Your task to perform on an android device: change the upload size in google photos Image 0: 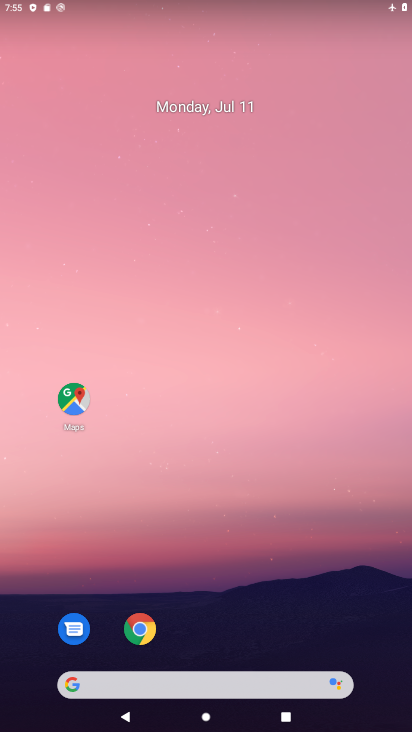
Step 0: drag from (220, 658) to (144, 8)
Your task to perform on an android device: change the upload size in google photos Image 1: 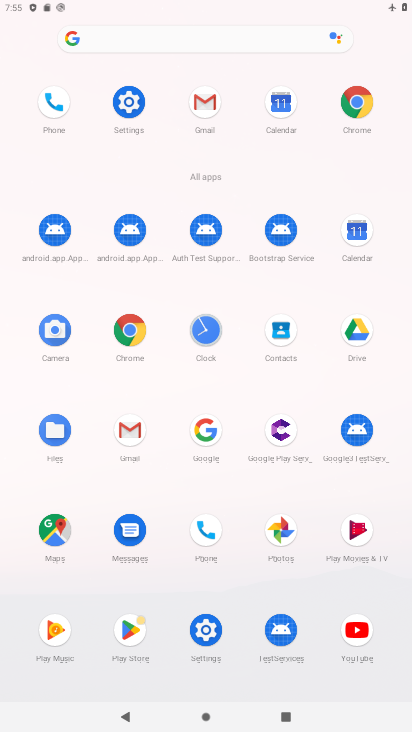
Step 1: click (279, 531)
Your task to perform on an android device: change the upload size in google photos Image 2: 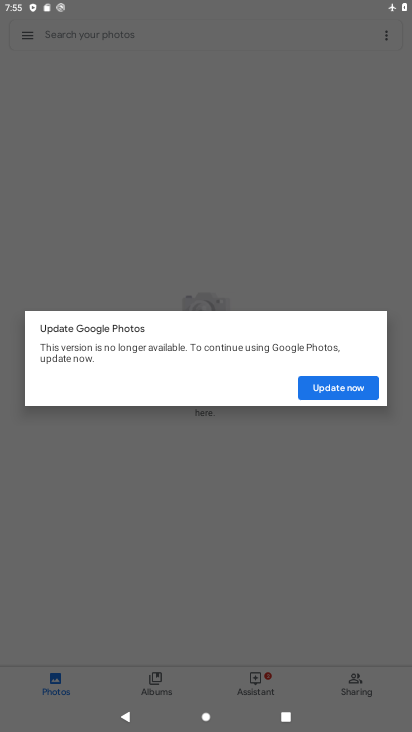
Step 2: click (338, 388)
Your task to perform on an android device: change the upload size in google photos Image 3: 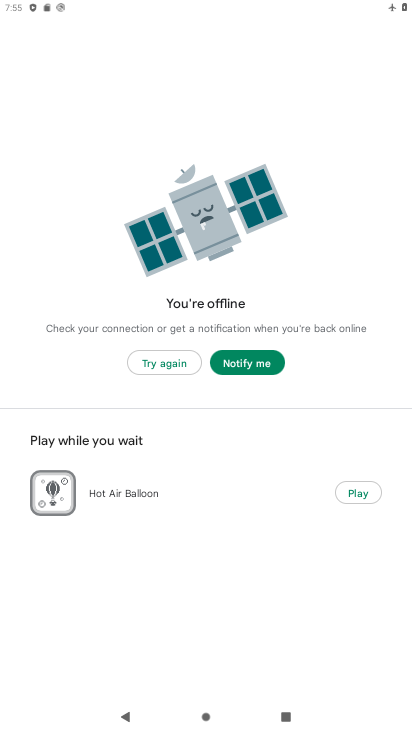
Step 3: click (184, 363)
Your task to perform on an android device: change the upload size in google photos Image 4: 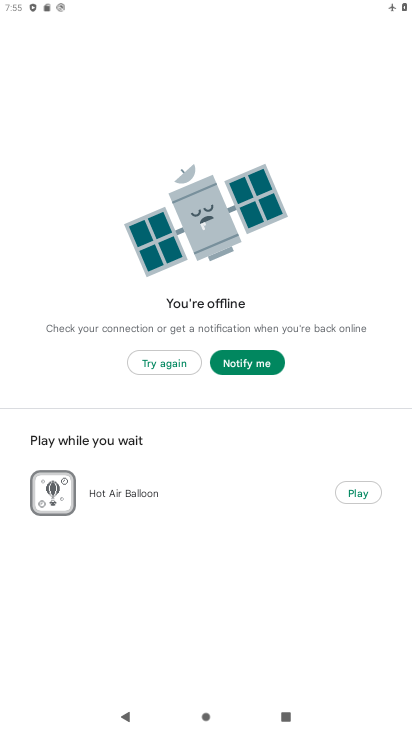
Step 4: click (272, 357)
Your task to perform on an android device: change the upload size in google photos Image 5: 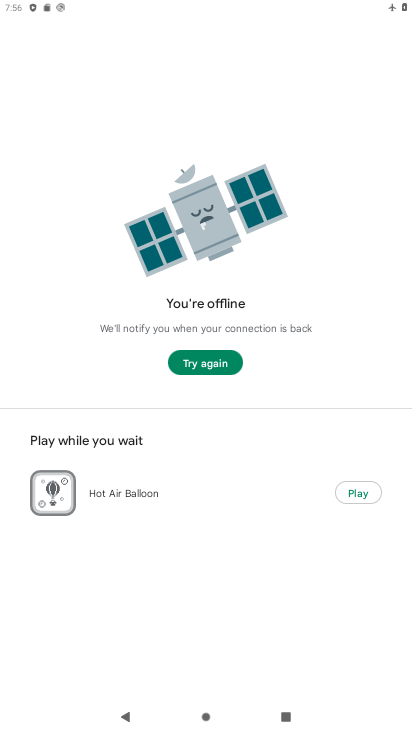
Step 5: task complete